Your task to perform on an android device: turn on airplane mode Image 0: 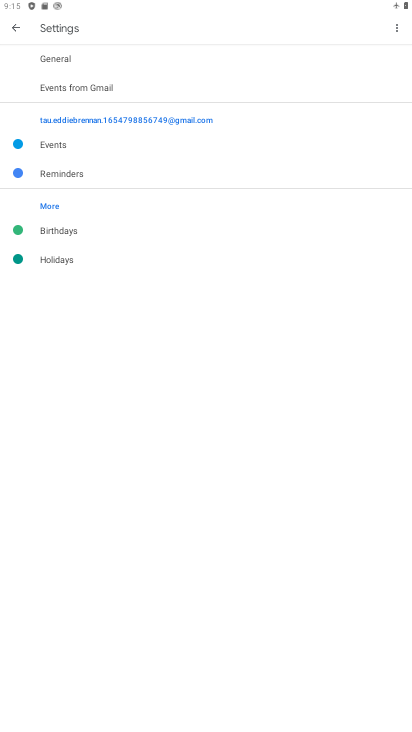
Step 0: press home button
Your task to perform on an android device: turn on airplane mode Image 1: 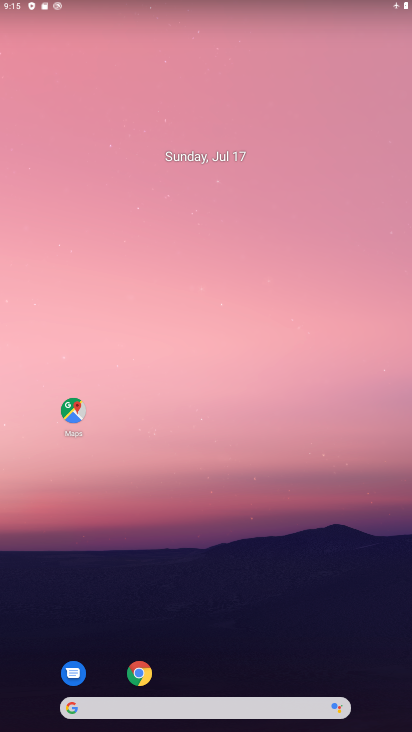
Step 1: drag from (394, 681) to (336, 235)
Your task to perform on an android device: turn on airplane mode Image 2: 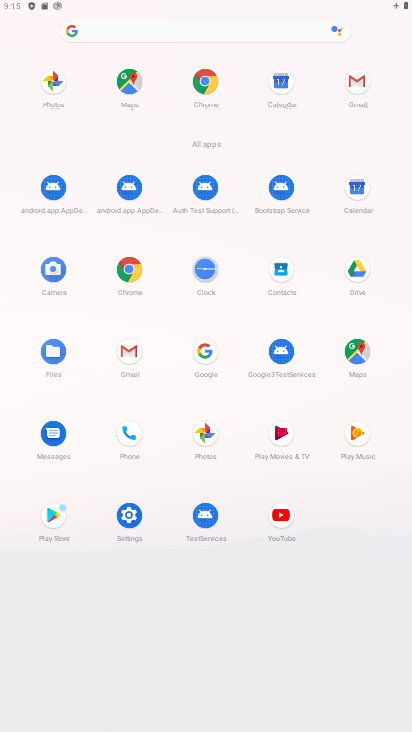
Step 2: click (131, 518)
Your task to perform on an android device: turn on airplane mode Image 3: 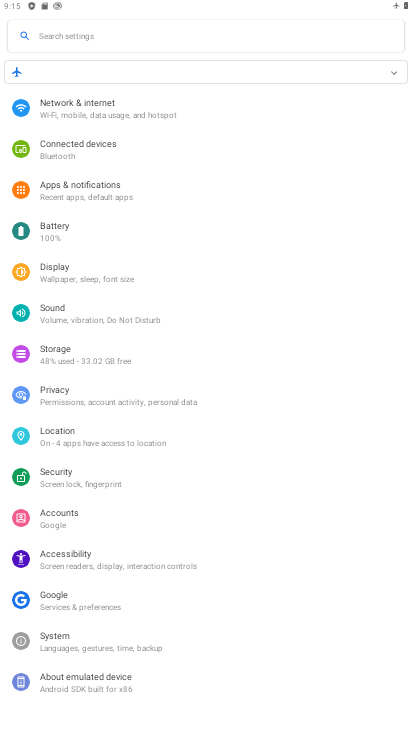
Step 3: click (93, 109)
Your task to perform on an android device: turn on airplane mode Image 4: 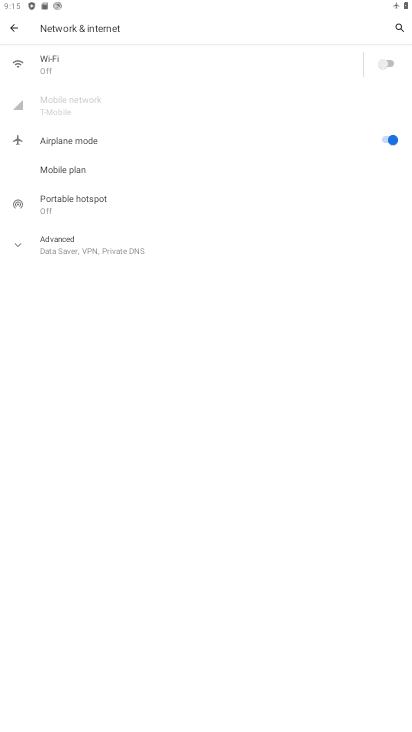
Step 4: task complete